Your task to perform on an android device: Is it going to rain tomorrow? Image 0: 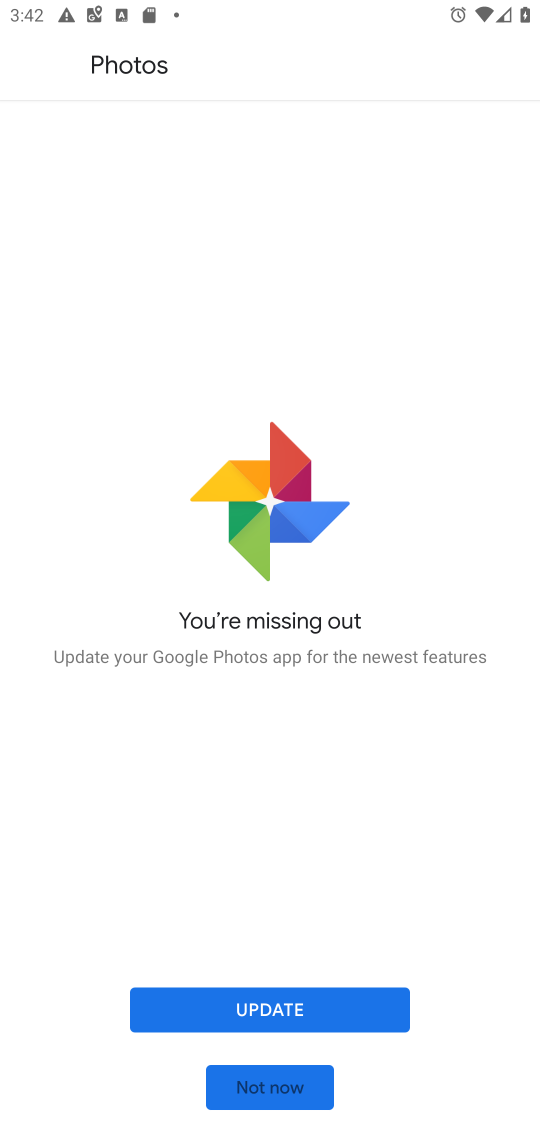
Step 0: press home button
Your task to perform on an android device: Is it going to rain tomorrow? Image 1: 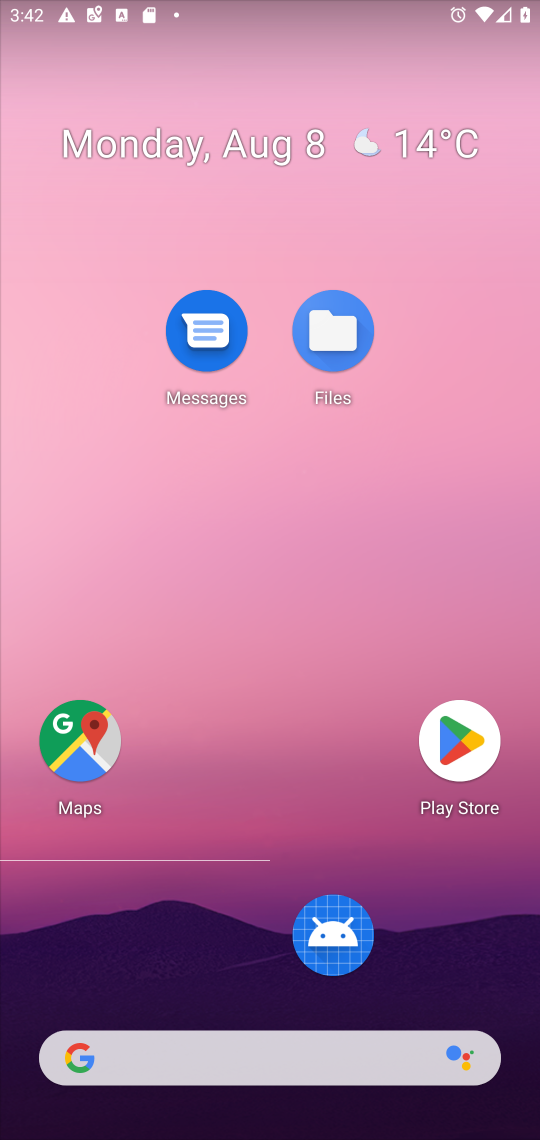
Step 1: drag from (268, 1057) to (264, 804)
Your task to perform on an android device: Is it going to rain tomorrow? Image 2: 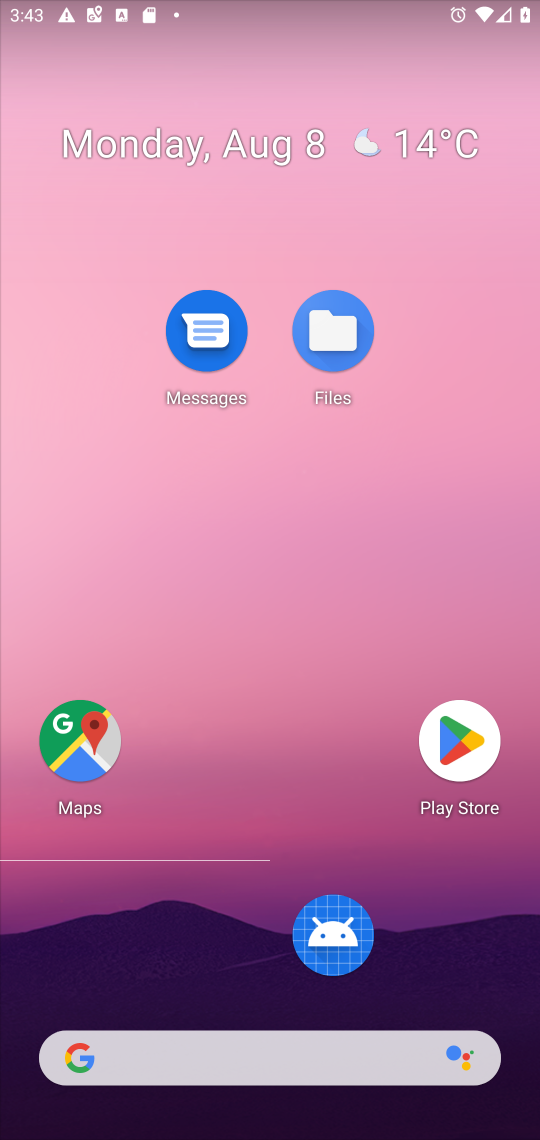
Step 2: drag from (219, 1033) to (116, 118)
Your task to perform on an android device: Is it going to rain tomorrow? Image 3: 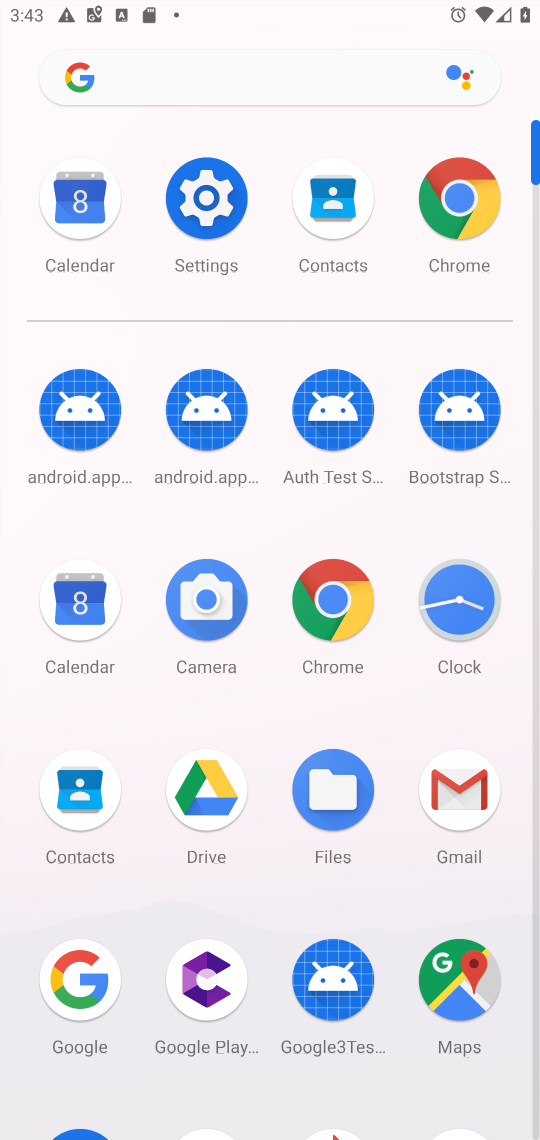
Step 3: click (90, 975)
Your task to perform on an android device: Is it going to rain tomorrow? Image 4: 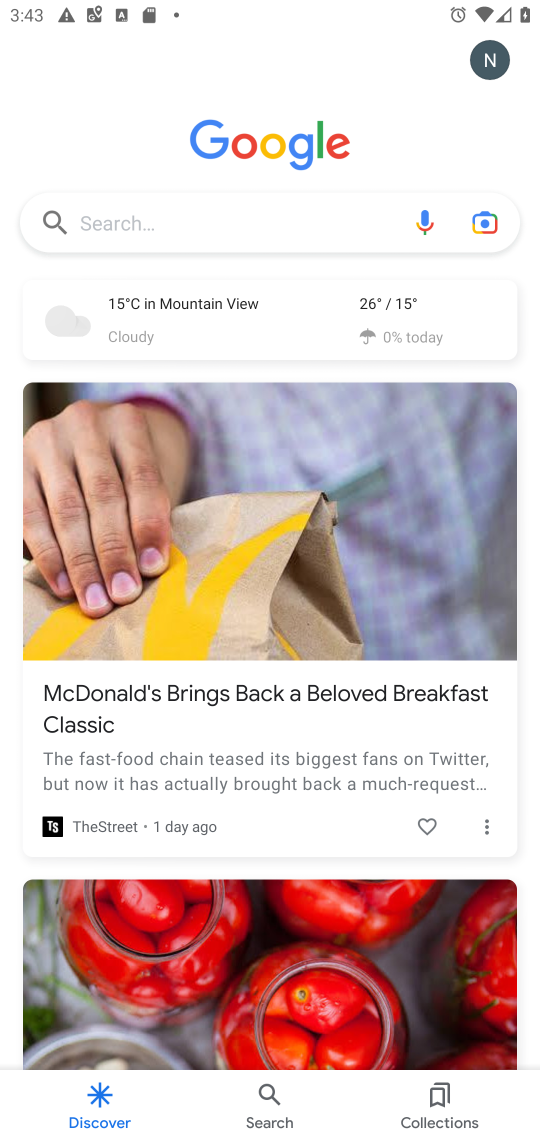
Step 4: click (300, 222)
Your task to perform on an android device: Is it going to rain tomorrow? Image 5: 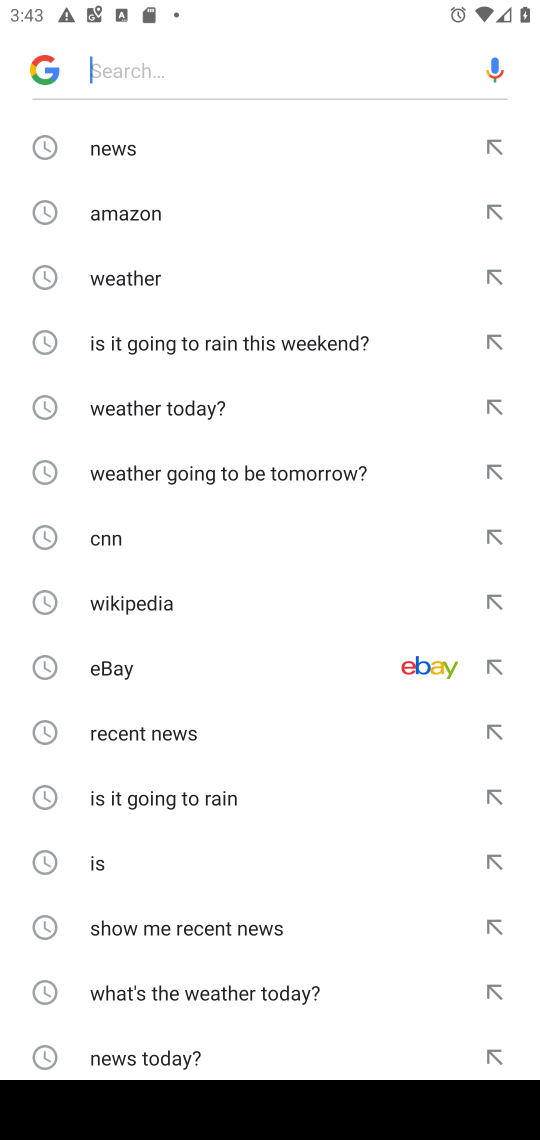
Step 5: type "is it going to rain tomorrow"
Your task to perform on an android device: Is it going to rain tomorrow? Image 6: 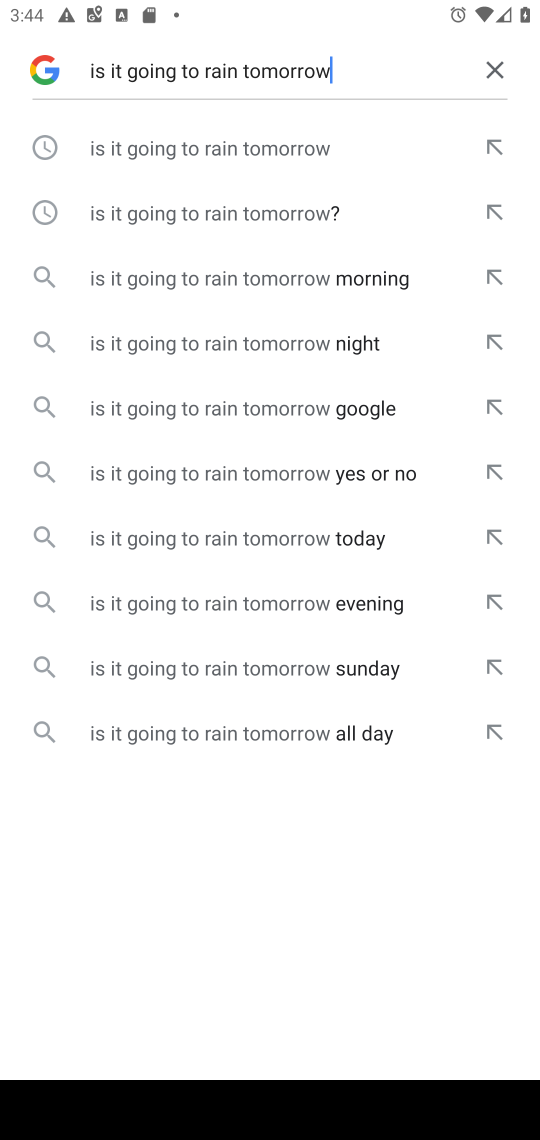
Step 6: click (230, 139)
Your task to perform on an android device: Is it going to rain tomorrow? Image 7: 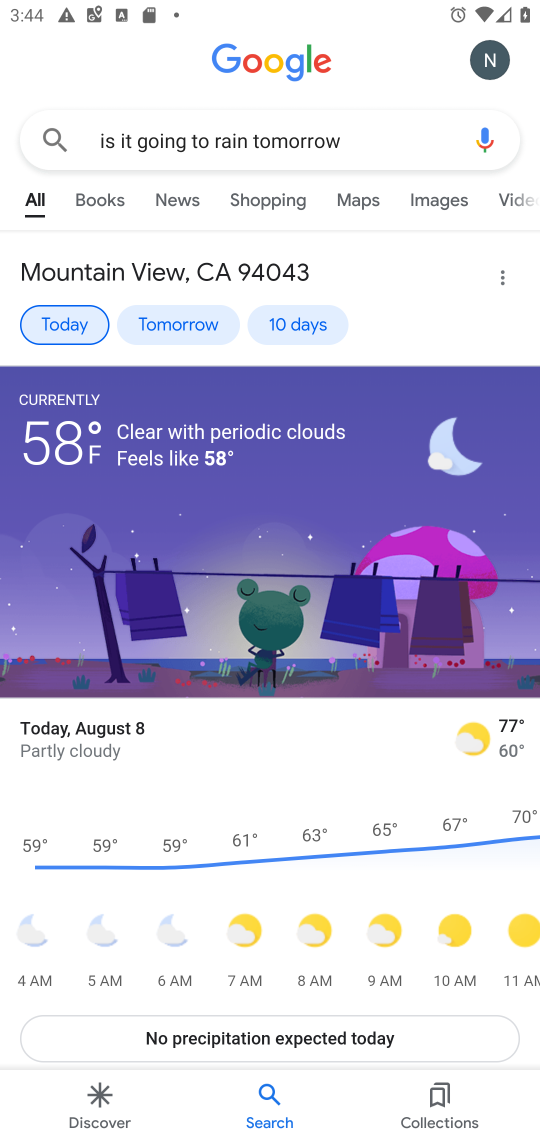
Step 7: task complete